Your task to perform on an android device: move an email to a new category in the gmail app Image 0: 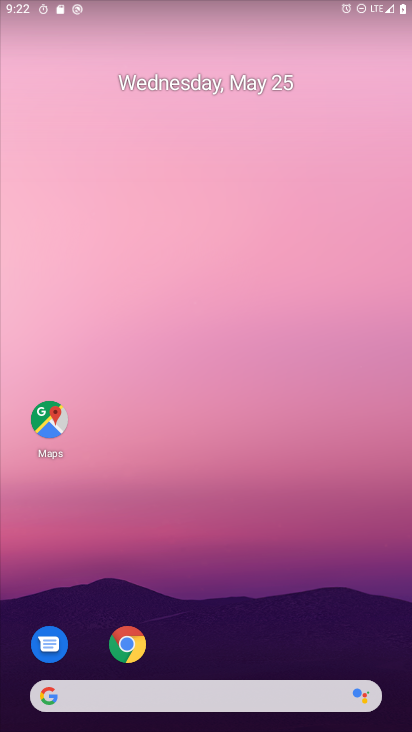
Step 0: drag from (295, 618) to (256, 84)
Your task to perform on an android device: move an email to a new category in the gmail app Image 1: 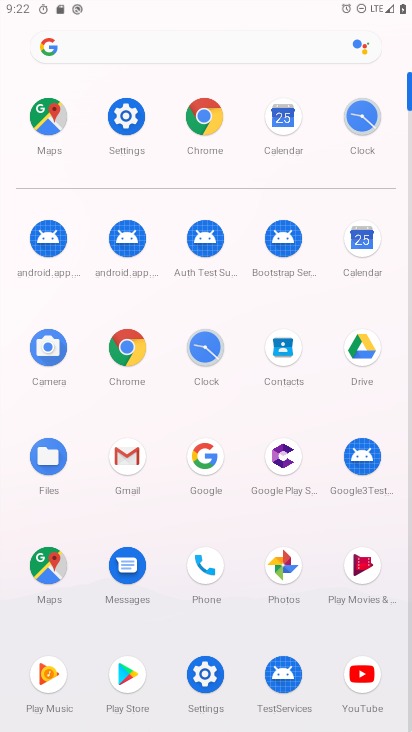
Step 1: click (125, 472)
Your task to perform on an android device: move an email to a new category in the gmail app Image 2: 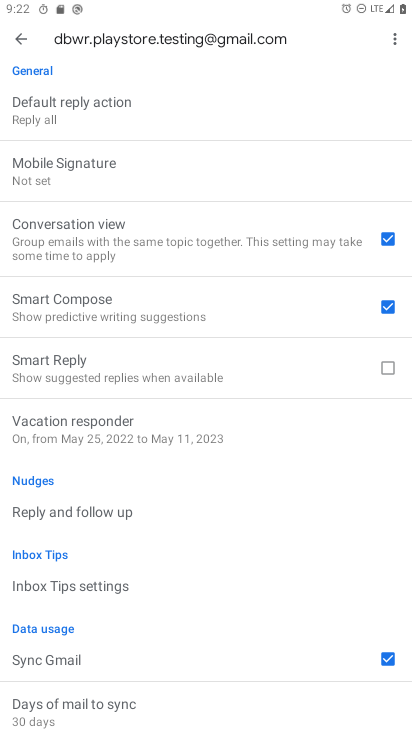
Step 2: task complete